Your task to perform on an android device: turn on notifications settings in the gmail app Image 0: 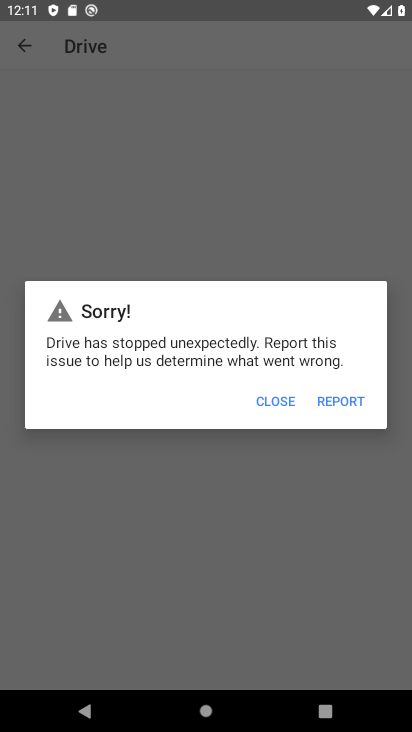
Step 0: press home button
Your task to perform on an android device: turn on notifications settings in the gmail app Image 1: 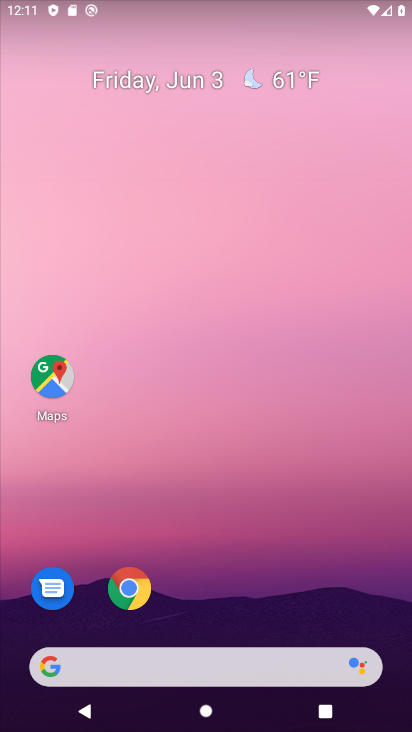
Step 1: drag from (292, 581) to (294, 215)
Your task to perform on an android device: turn on notifications settings in the gmail app Image 2: 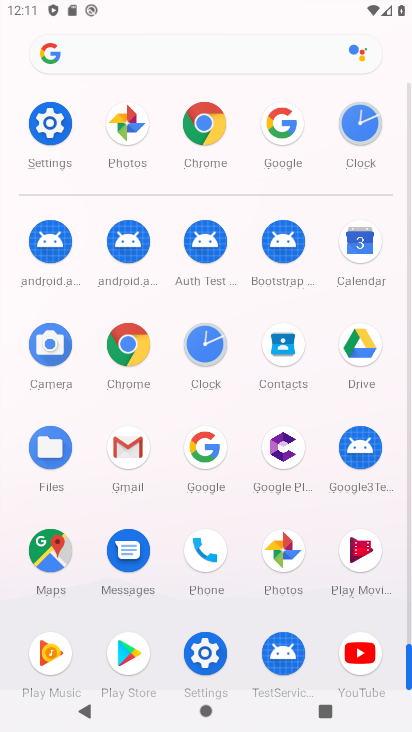
Step 2: click (128, 465)
Your task to perform on an android device: turn on notifications settings in the gmail app Image 3: 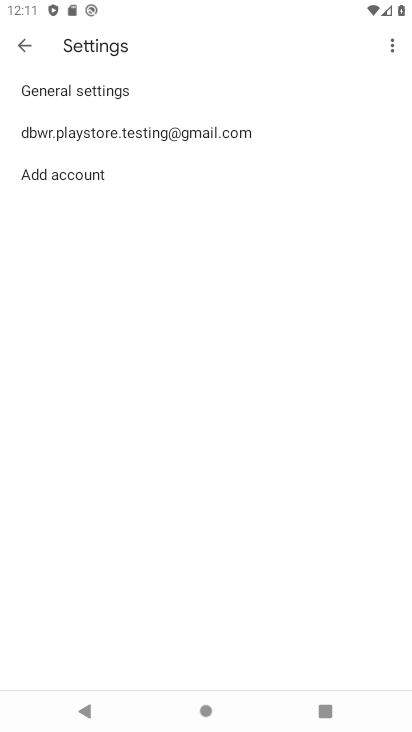
Step 3: click (170, 134)
Your task to perform on an android device: turn on notifications settings in the gmail app Image 4: 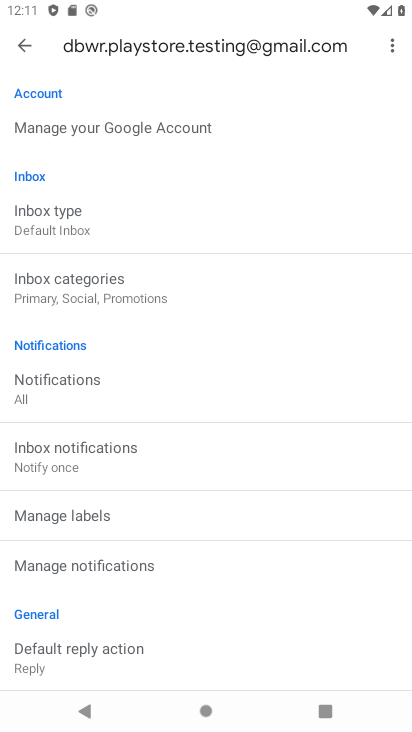
Step 4: click (123, 570)
Your task to perform on an android device: turn on notifications settings in the gmail app Image 5: 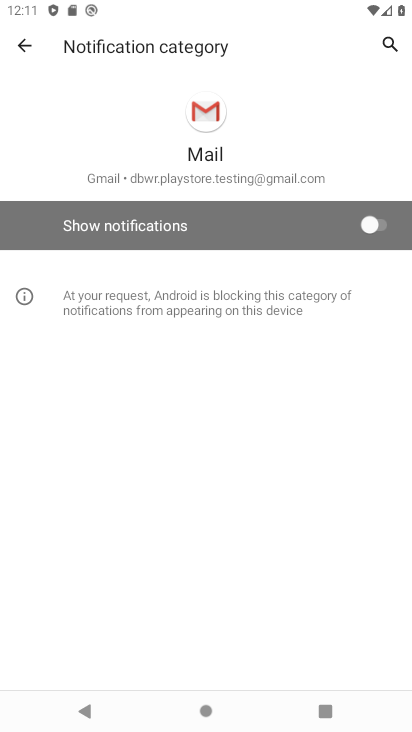
Step 5: click (353, 229)
Your task to perform on an android device: turn on notifications settings in the gmail app Image 6: 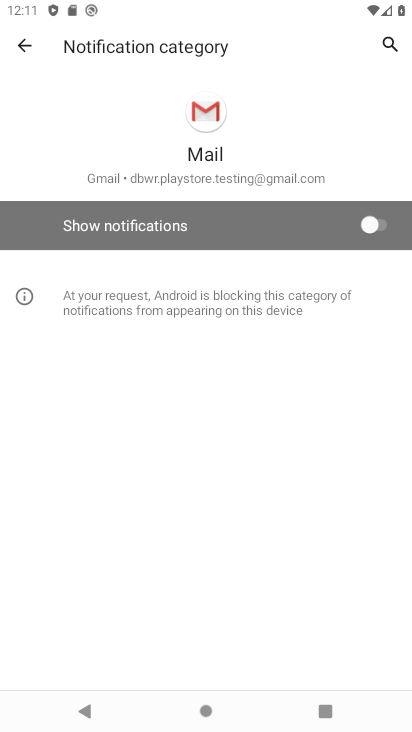
Step 6: click (368, 233)
Your task to perform on an android device: turn on notifications settings in the gmail app Image 7: 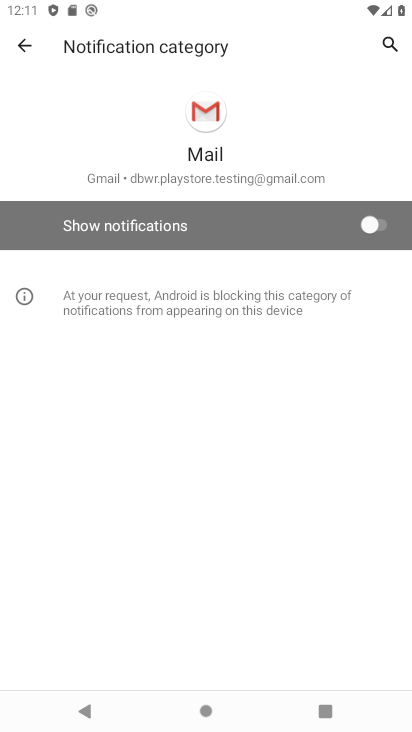
Step 7: click (380, 234)
Your task to perform on an android device: turn on notifications settings in the gmail app Image 8: 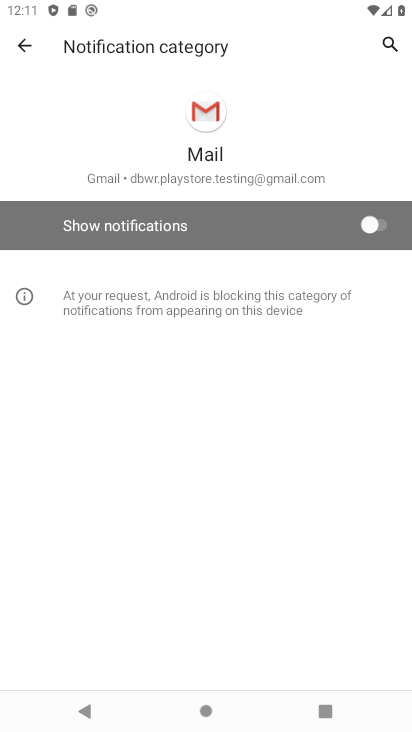
Step 8: press back button
Your task to perform on an android device: turn on notifications settings in the gmail app Image 9: 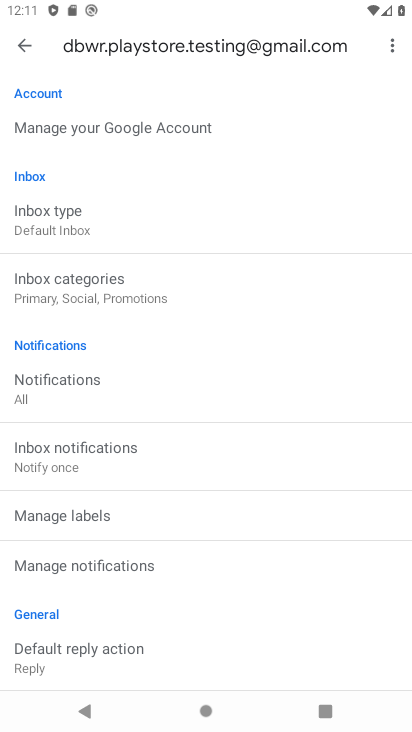
Step 9: press back button
Your task to perform on an android device: turn on notifications settings in the gmail app Image 10: 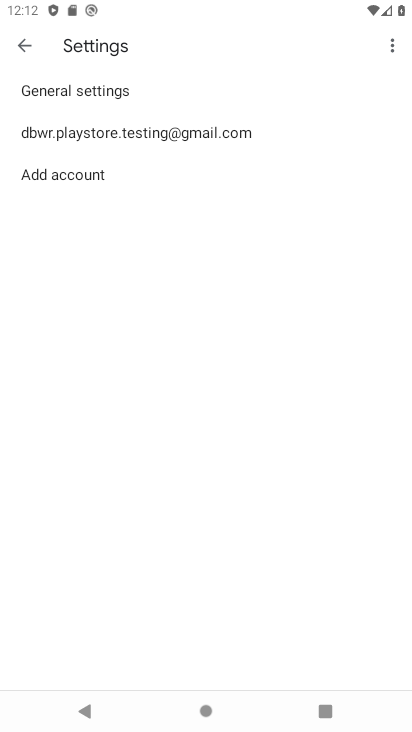
Step 10: click (155, 100)
Your task to perform on an android device: turn on notifications settings in the gmail app Image 11: 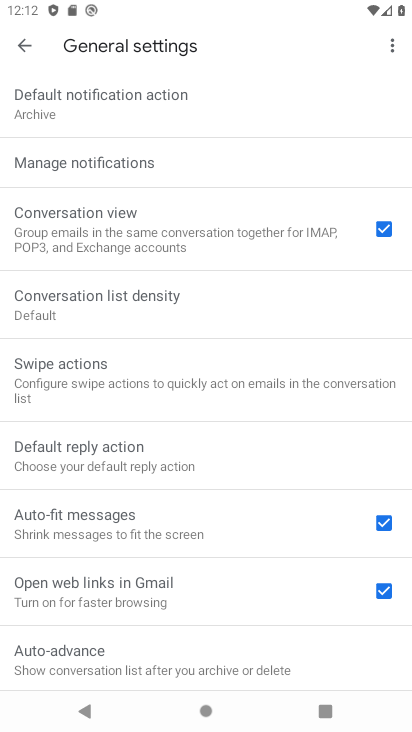
Step 11: click (157, 170)
Your task to perform on an android device: turn on notifications settings in the gmail app Image 12: 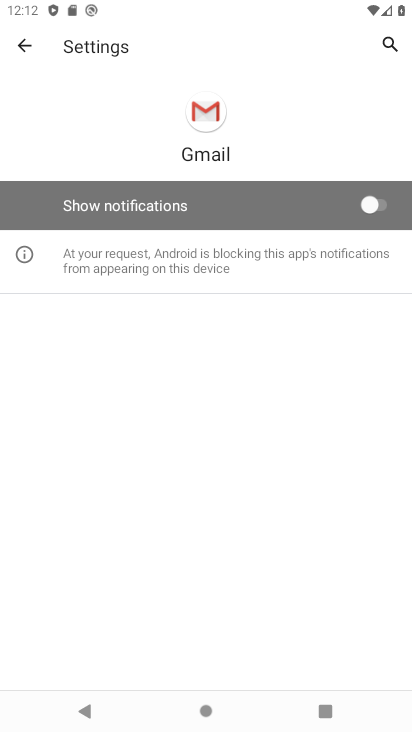
Step 12: click (373, 207)
Your task to perform on an android device: turn on notifications settings in the gmail app Image 13: 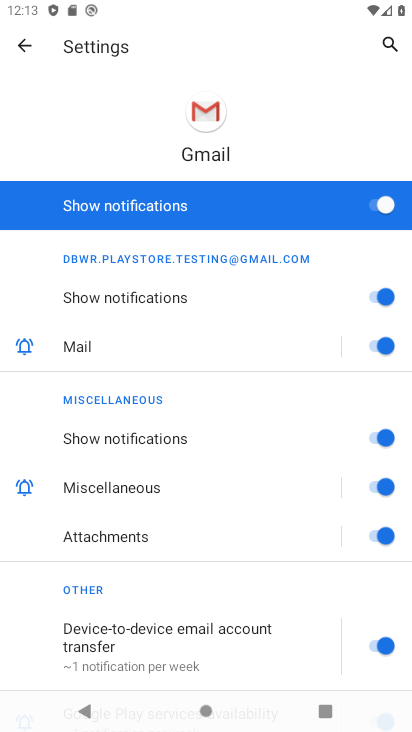
Step 13: task complete